Your task to perform on an android device: all mails in gmail Image 0: 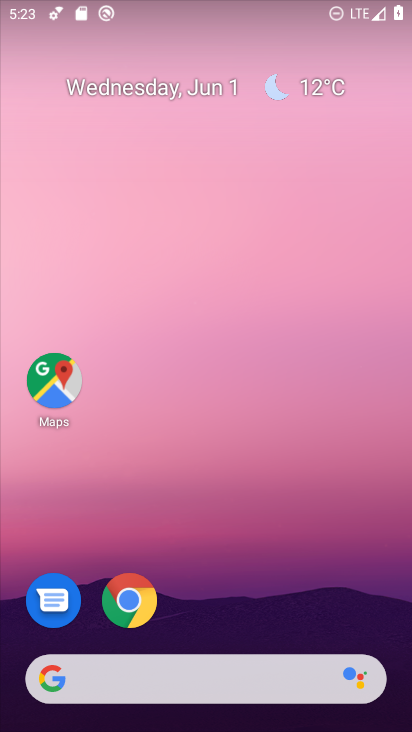
Step 0: drag from (354, 625) to (318, 84)
Your task to perform on an android device: all mails in gmail Image 1: 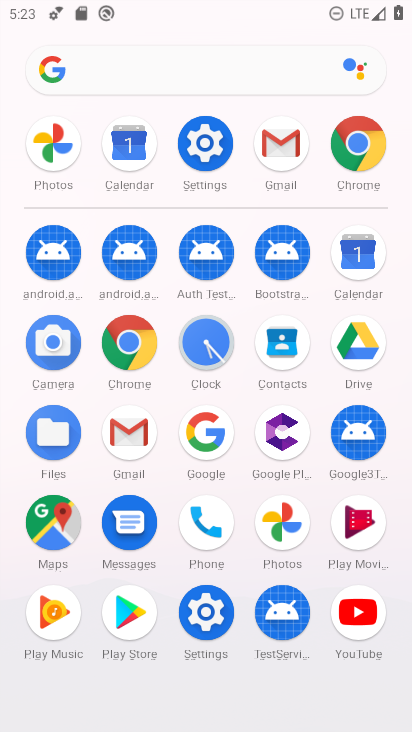
Step 1: click (128, 433)
Your task to perform on an android device: all mails in gmail Image 2: 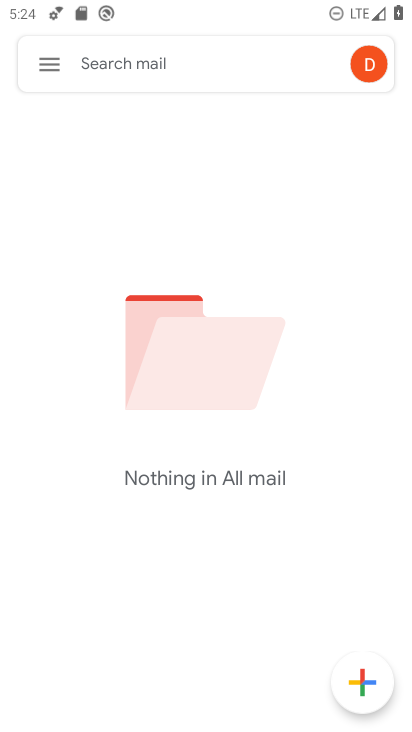
Step 2: click (51, 66)
Your task to perform on an android device: all mails in gmail Image 3: 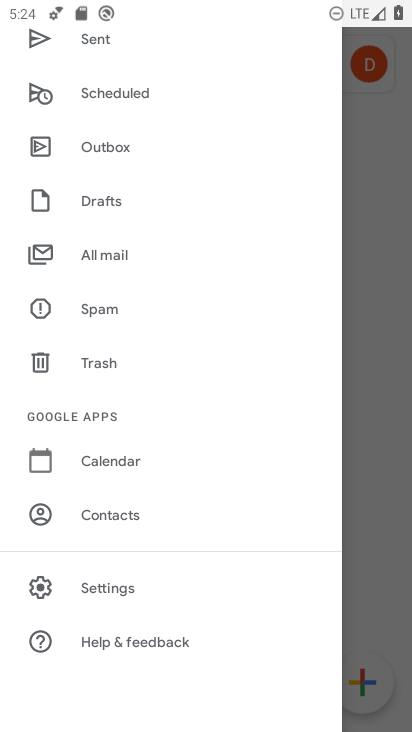
Step 3: click (109, 258)
Your task to perform on an android device: all mails in gmail Image 4: 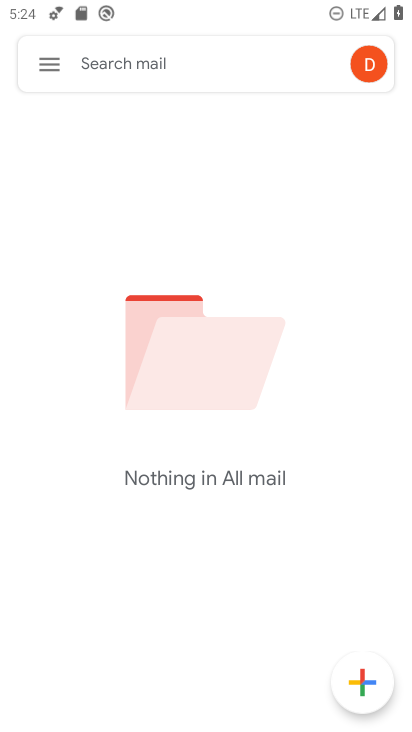
Step 4: task complete